Your task to perform on an android device: turn on showing notifications on the lock screen Image 0: 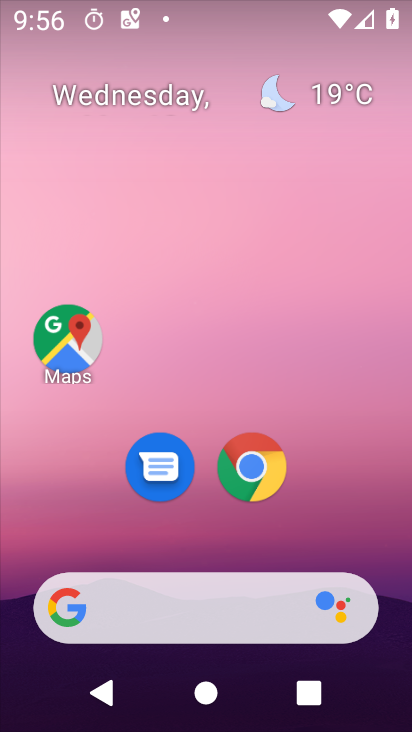
Step 0: drag from (331, 498) to (197, 38)
Your task to perform on an android device: turn on showing notifications on the lock screen Image 1: 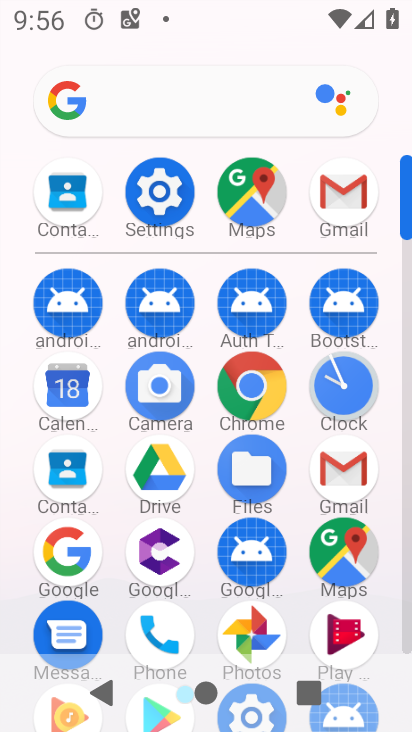
Step 1: click (147, 199)
Your task to perform on an android device: turn on showing notifications on the lock screen Image 2: 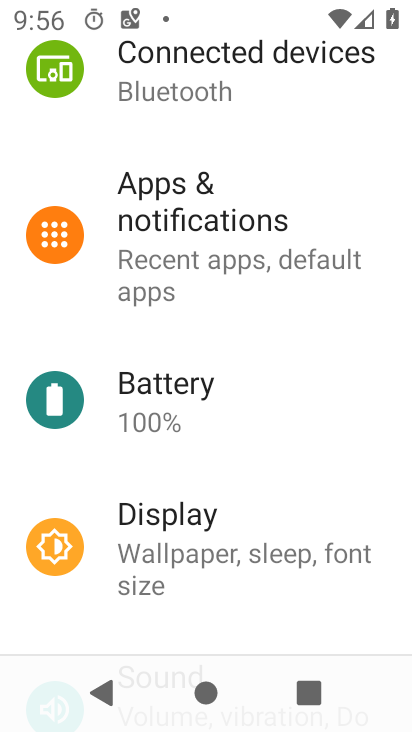
Step 2: click (248, 593)
Your task to perform on an android device: turn on showing notifications on the lock screen Image 3: 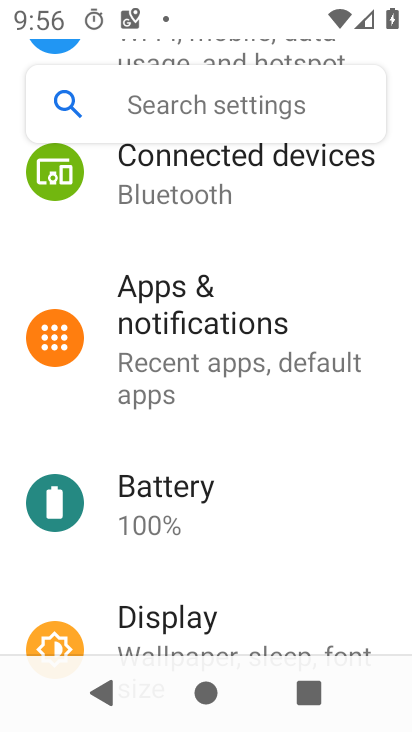
Step 3: click (232, 332)
Your task to perform on an android device: turn on showing notifications on the lock screen Image 4: 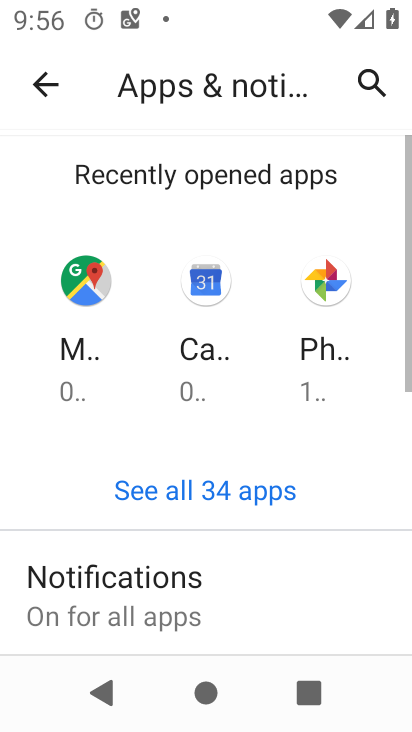
Step 4: click (206, 594)
Your task to perform on an android device: turn on showing notifications on the lock screen Image 5: 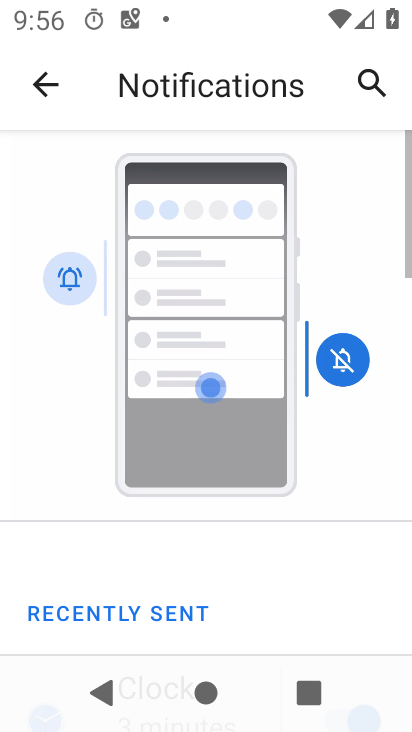
Step 5: drag from (258, 632) to (218, 140)
Your task to perform on an android device: turn on showing notifications on the lock screen Image 6: 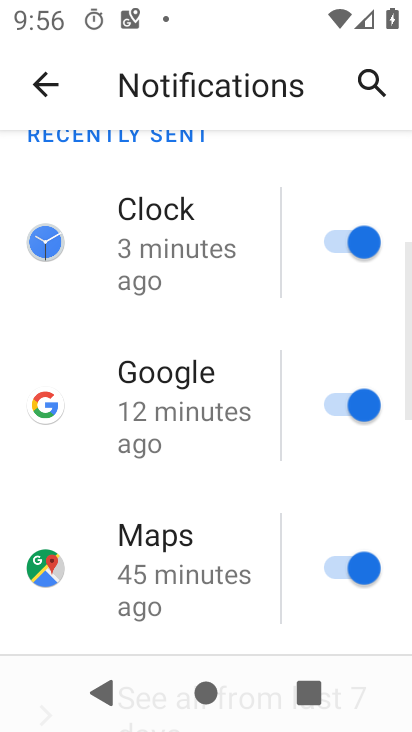
Step 6: drag from (246, 527) to (224, 130)
Your task to perform on an android device: turn on showing notifications on the lock screen Image 7: 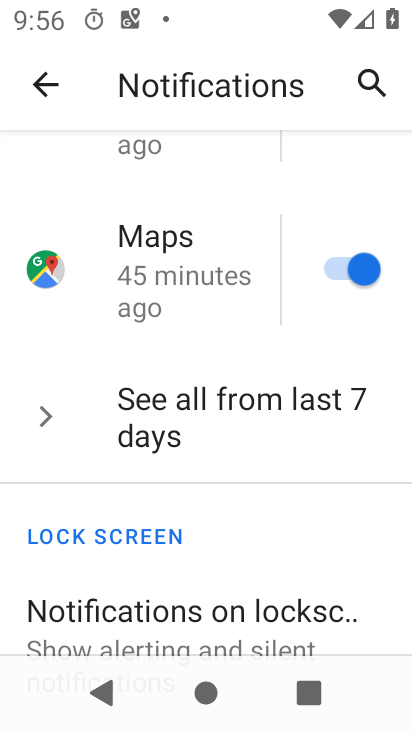
Step 7: click (236, 608)
Your task to perform on an android device: turn on showing notifications on the lock screen Image 8: 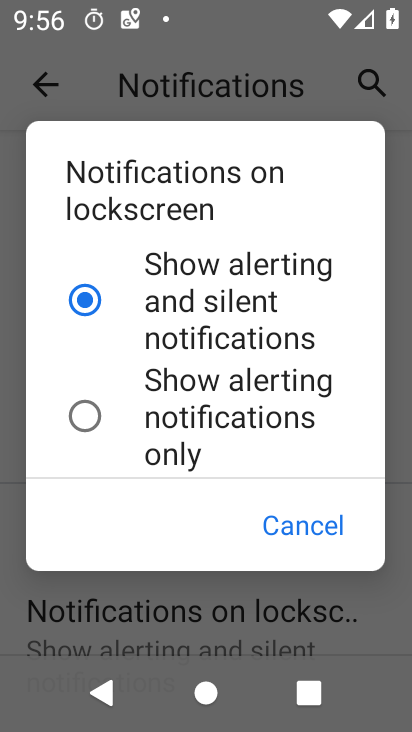
Step 8: task complete